Your task to perform on an android device: Search for seafood restaurants on Google Maps Image 0: 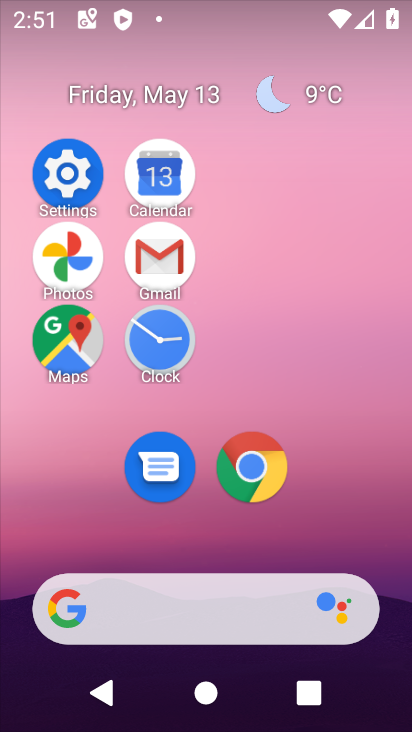
Step 0: click (74, 338)
Your task to perform on an android device: Search for seafood restaurants on Google Maps Image 1: 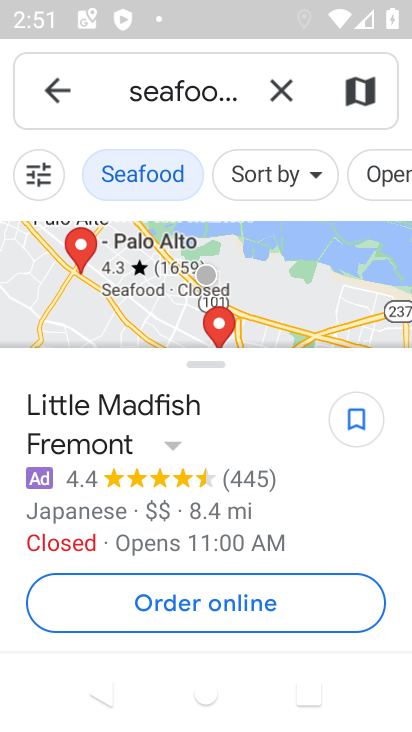
Step 1: task complete